Your task to perform on an android device: Go to network settings Image 0: 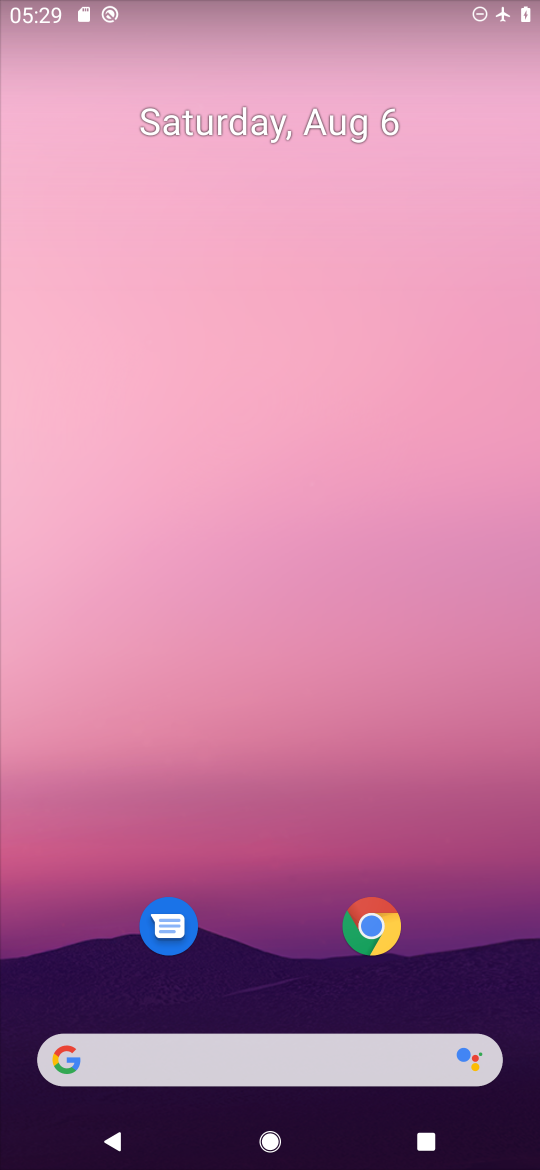
Step 0: drag from (283, 933) to (292, 298)
Your task to perform on an android device: Go to network settings Image 1: 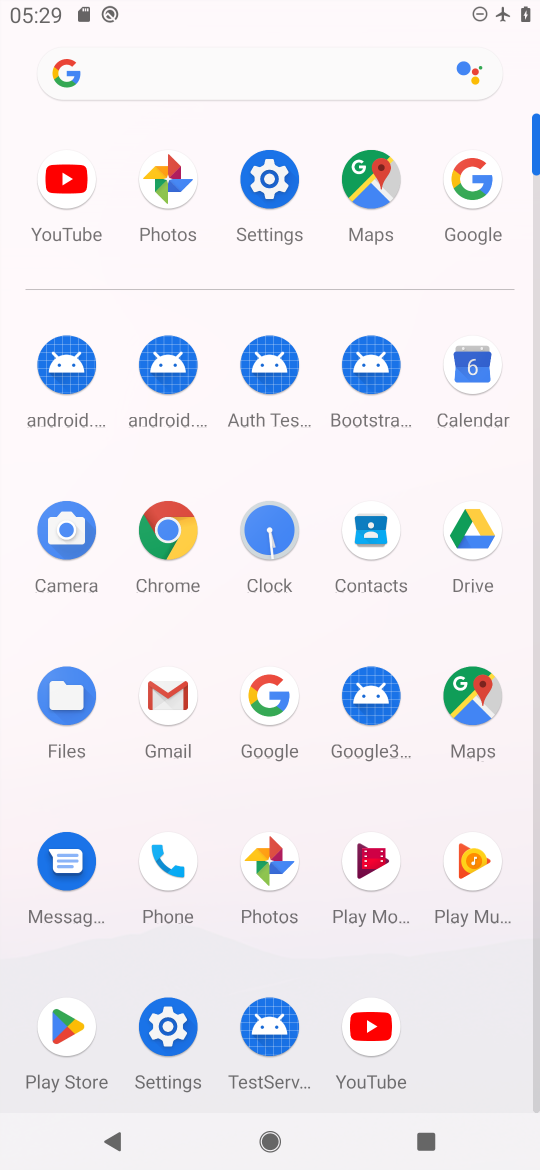
Step 1: click (247, 206)
Your task to perform on an android device: Go to network settings Image 2: 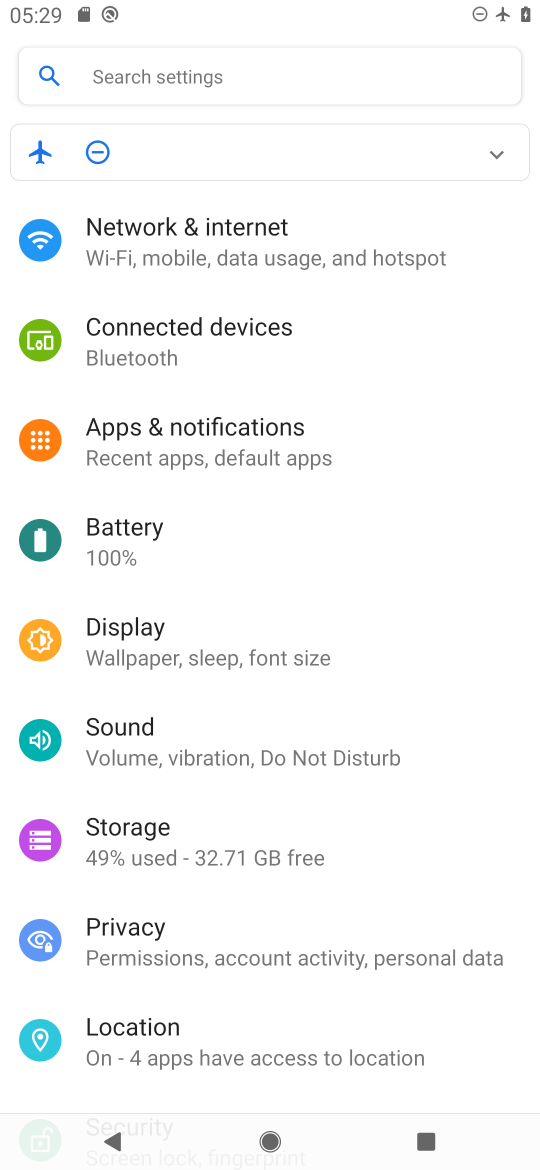
Step 2: click (261, 232)
Your task to perform on an android device: Go to network settings Image 3: 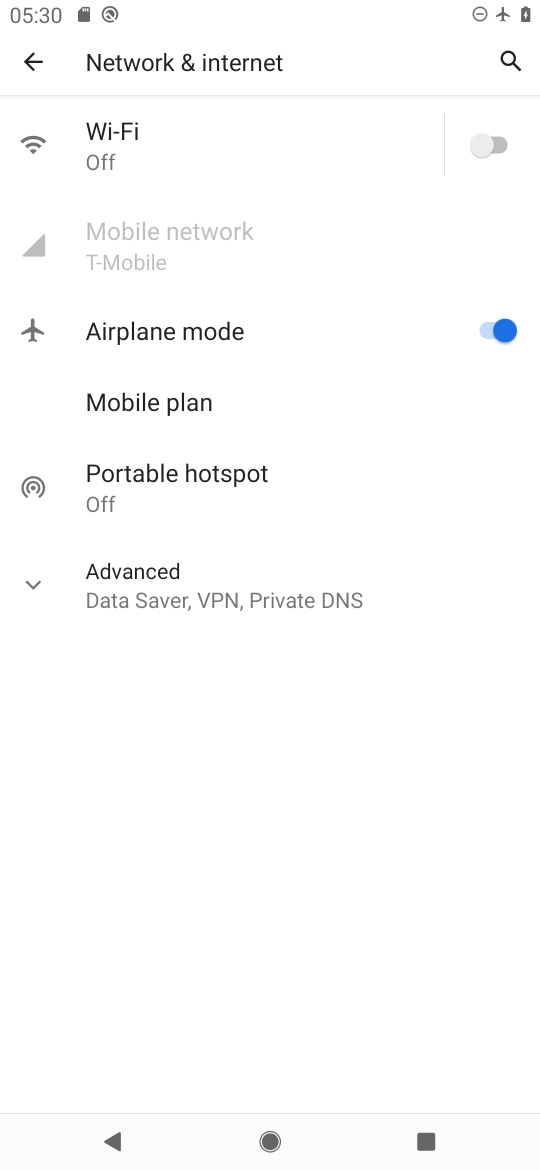
Step 3: task complete